Your task to perform on an android device: Go to accessibility settings Image 0: 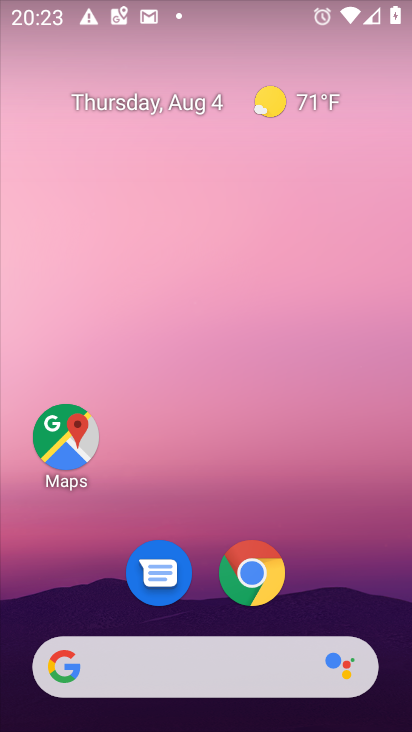
Step 0: drag from (245, 611) to (138, 20)
Your task to perform on an android device: Go to accessibility settings Image 1: 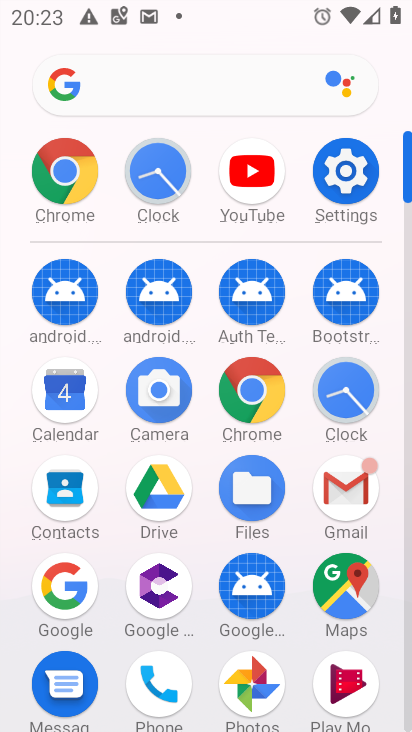
Step 1: click (330, 195)
Your task to perform on an android device: Go to accessibility settings Image 2: 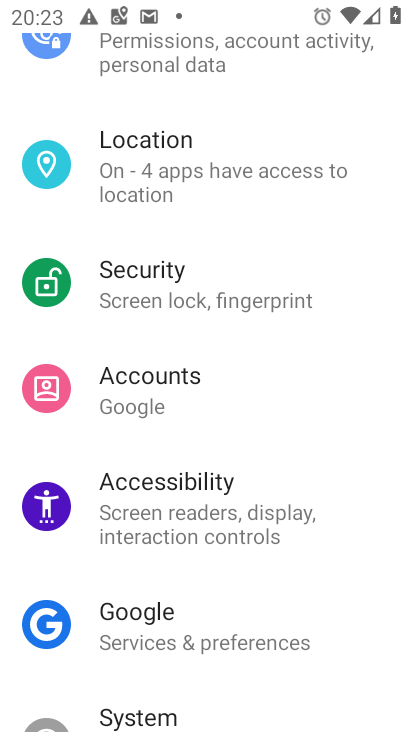
Step 2: click (236, 494)
Your task to perform on an android device: Go to accessibility settings Image 3: 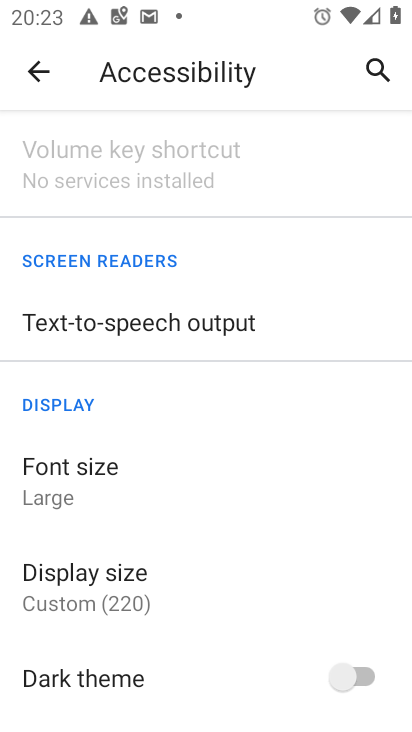
Step 3: task complete